Your task to perform on an android device: Open the map Image 0: 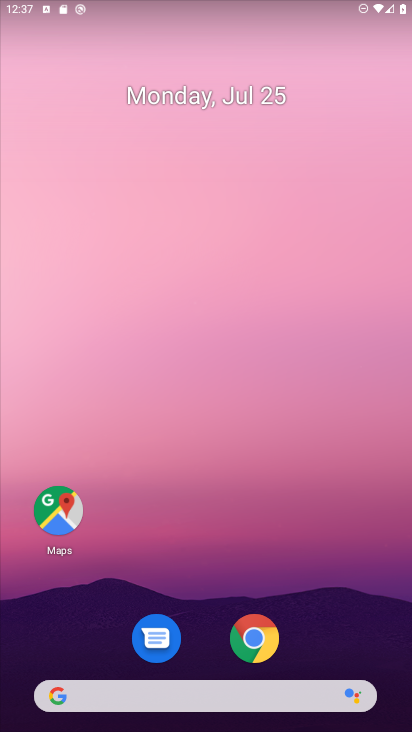
Step 0: click (65, 513)
Your task to perform on an android device: Open the map Image 1: 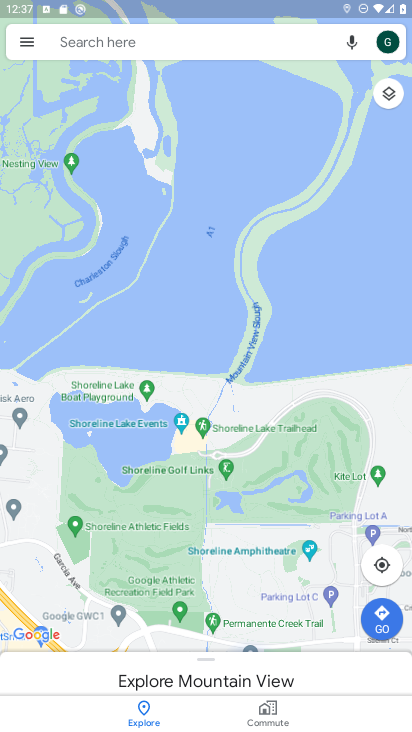
Step 1: task complete